Your task to perform on an android device: turn off location history Image 0: 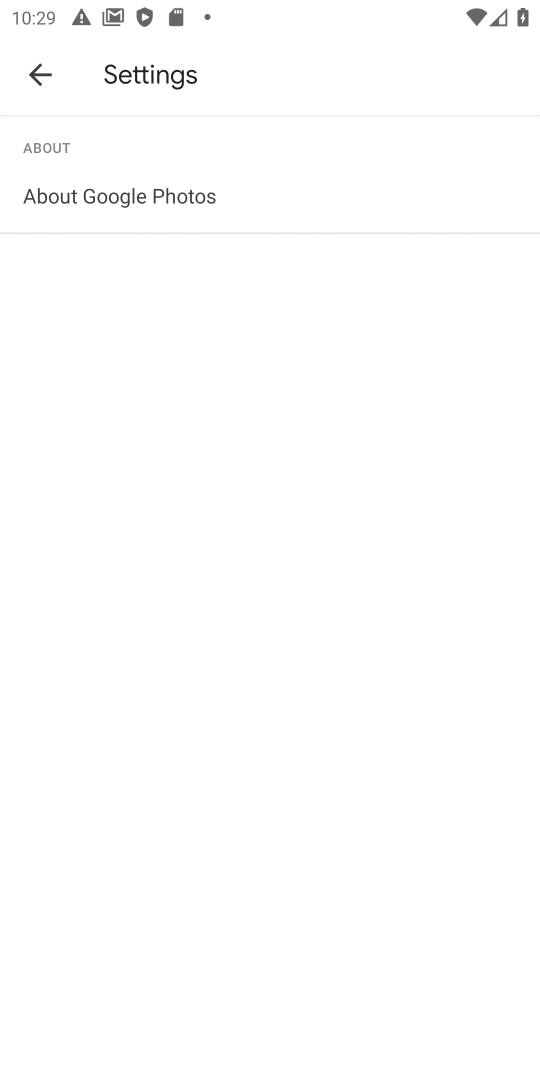
Step 0: press home button
Your task to perform on an android device: turn off location history Image 1: 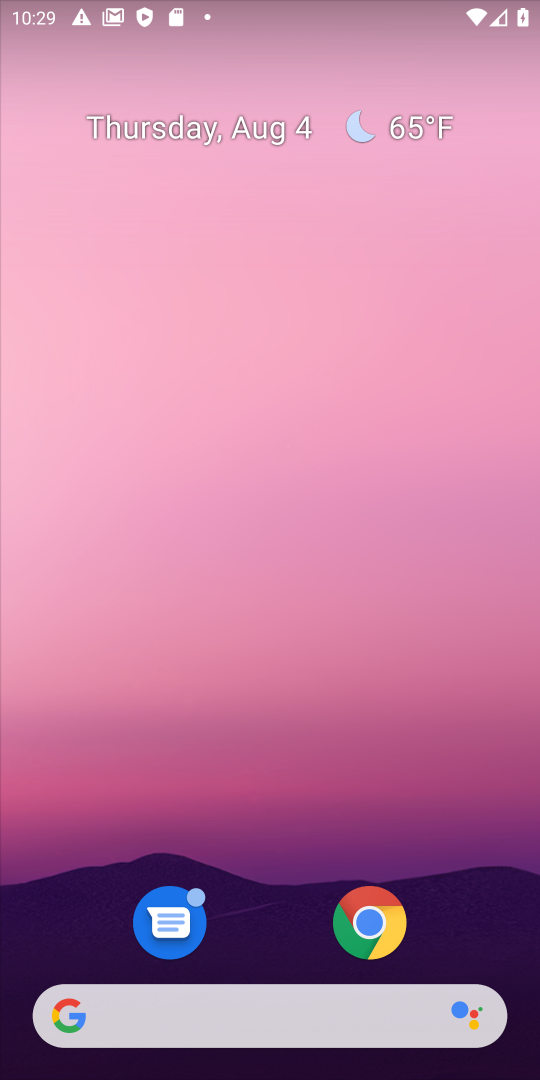
Step 1: drag from (279, 927) to (279, 162)
Your task to perform on an android device: turn off location history Image 2: 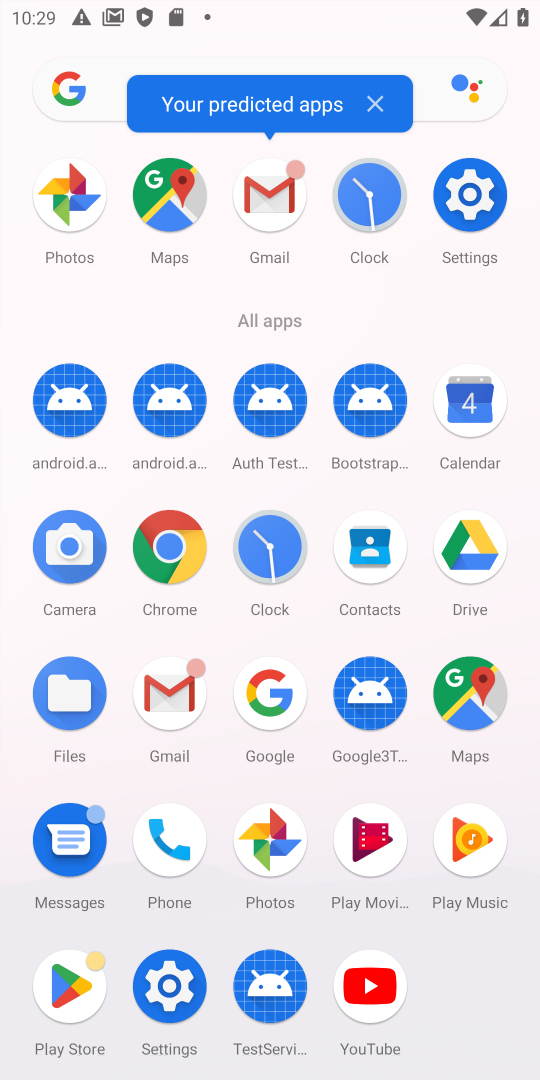
Step 2: click (454, 206)
Your task to perform on an android device: turn off location history Image 3: 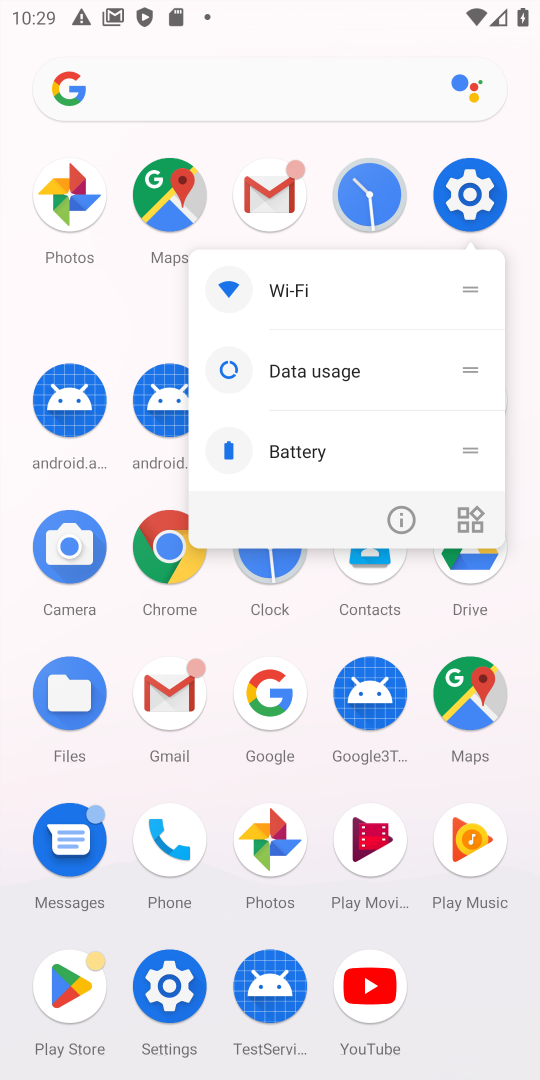
Step 3: click (465, 189)
Your task to perform on an android device: turn off location history Image 4: 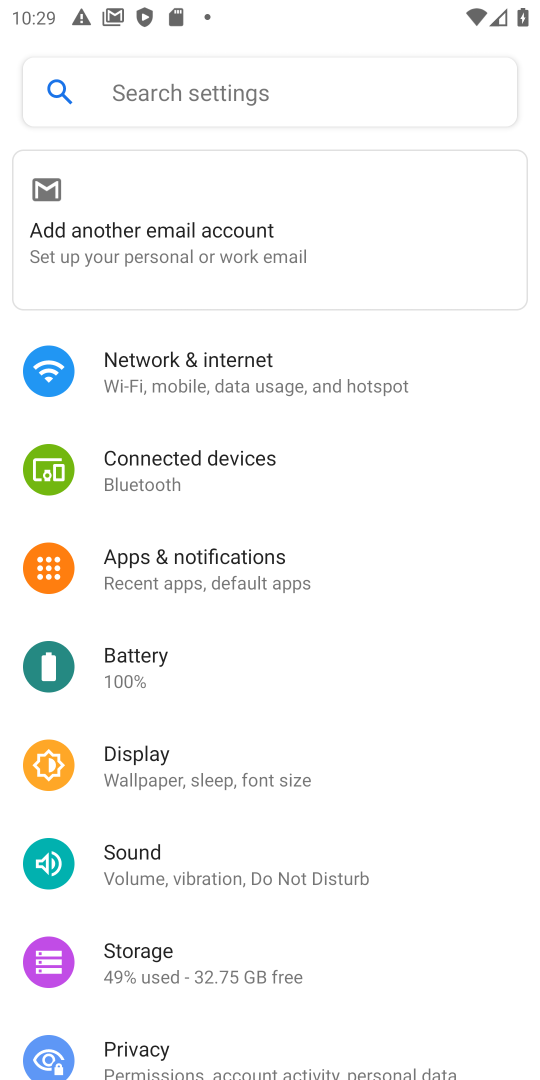
Step 4: drag from (160, 998) to (175, 503)
Your task to perform on an android device: turn off location history Image 5: 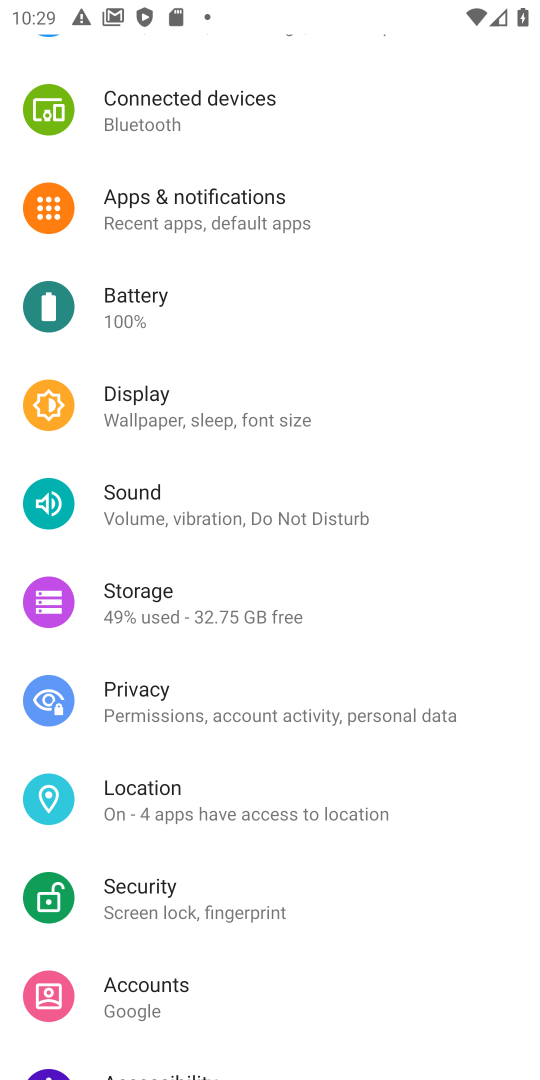
Step 5: click (145, 799)
Your task to perform on an android device: turn off location history Image 6: 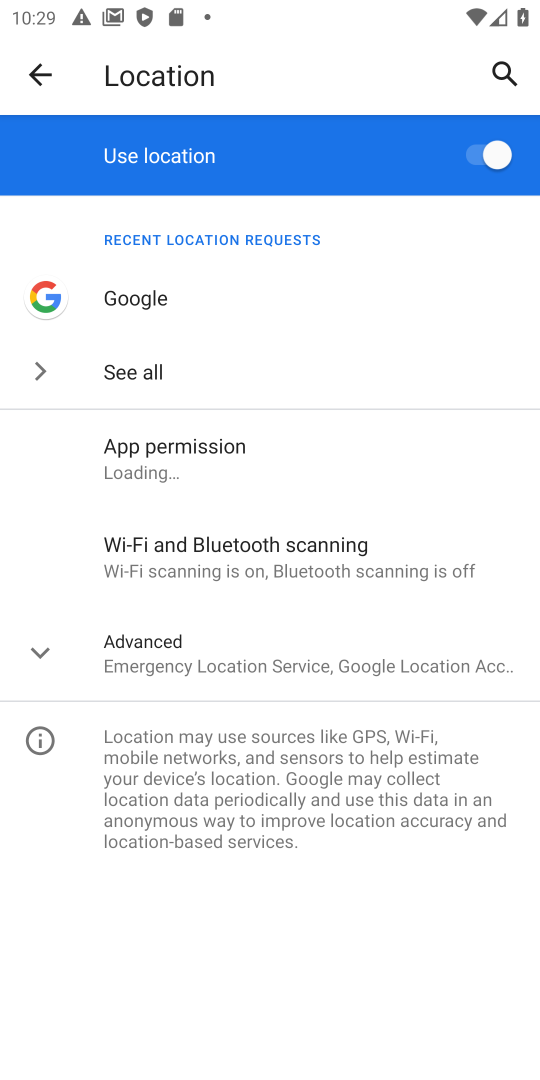
Step 6: click (127, 665)
Your task to perform on an android device: turn off location history Image 7: 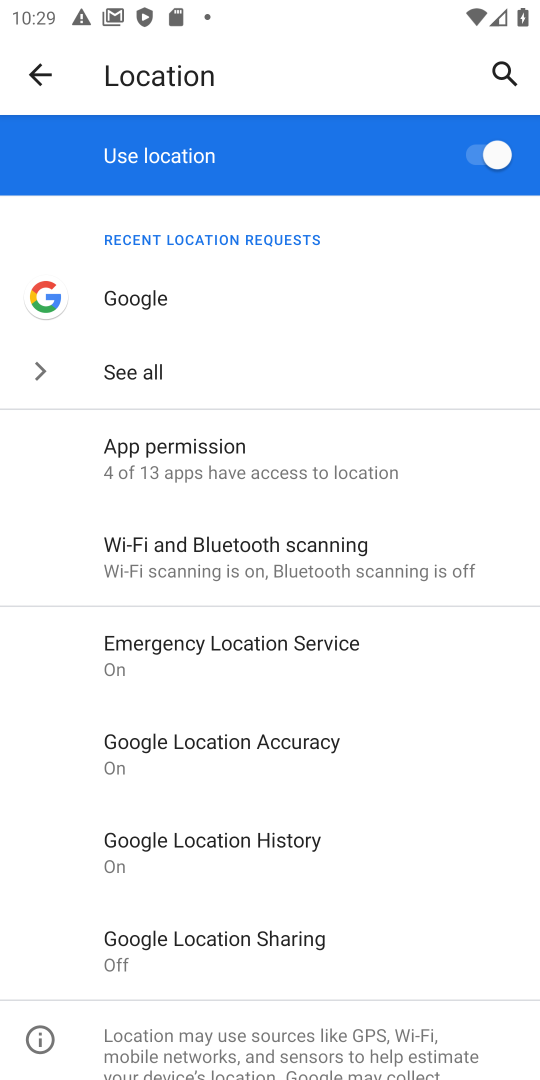
Step 7: click (280, 842)
Your task to perform on an android device: turn off location history Image 8: 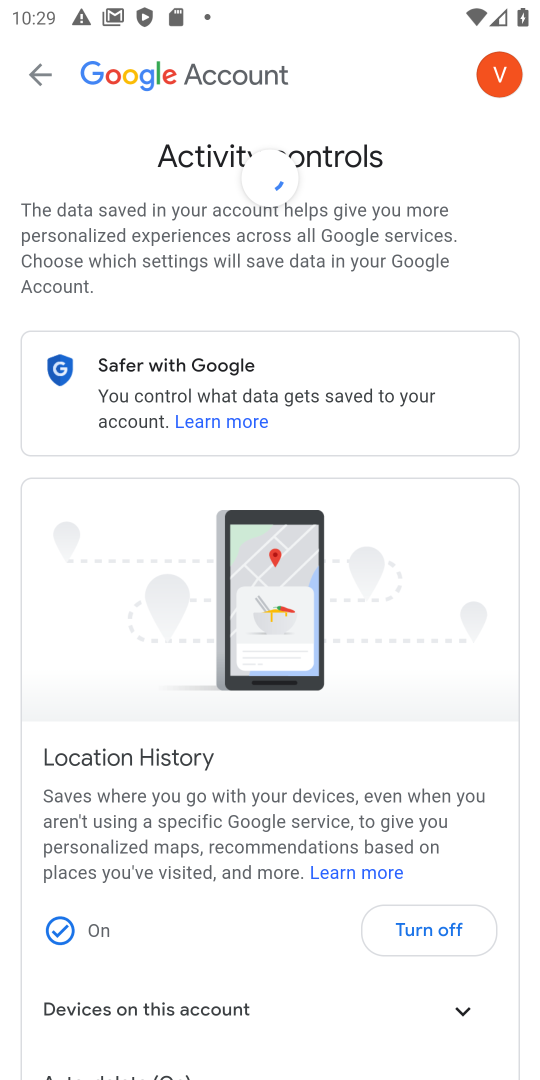
Step 8: click (422, 917)
Your task to perform on an android device: turn off location history Image 9: 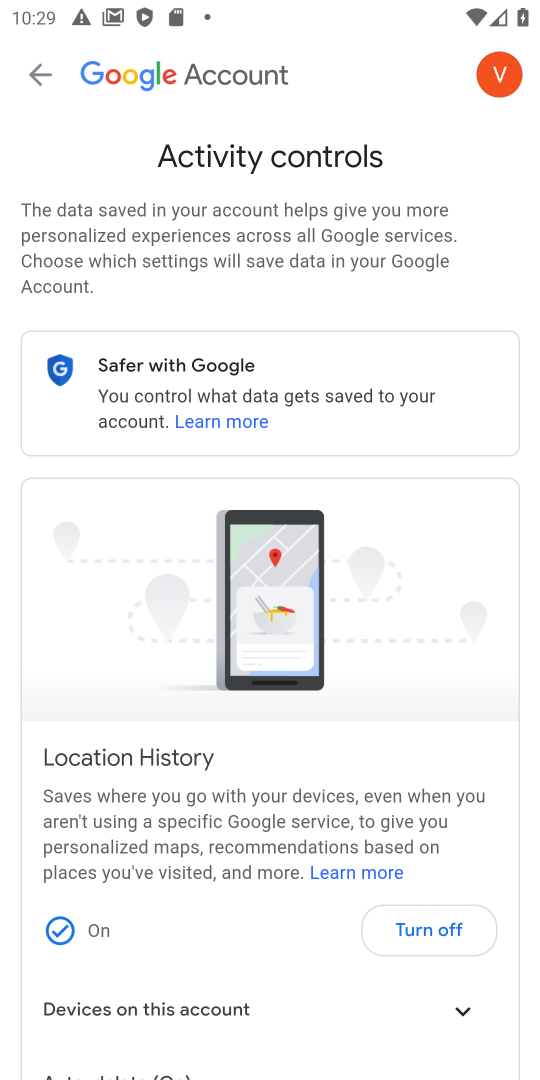
Step 9: click (419, 929)
Your task to perform on an android device: turn off location history Image 10: 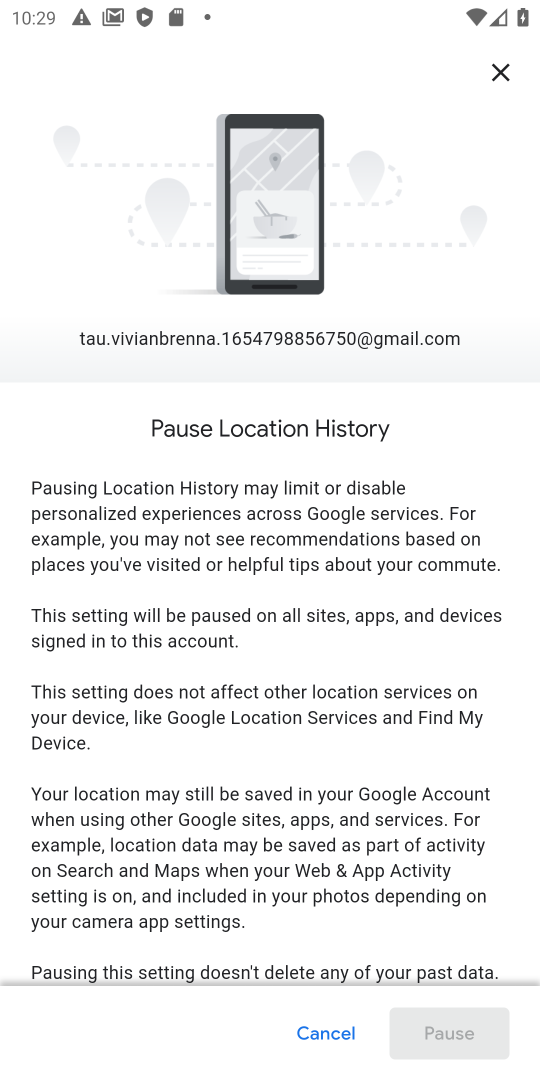
Step 10: drag from (399, 916) to (396, 444)
Your task to perform on an android device: turn off location history Image 11: 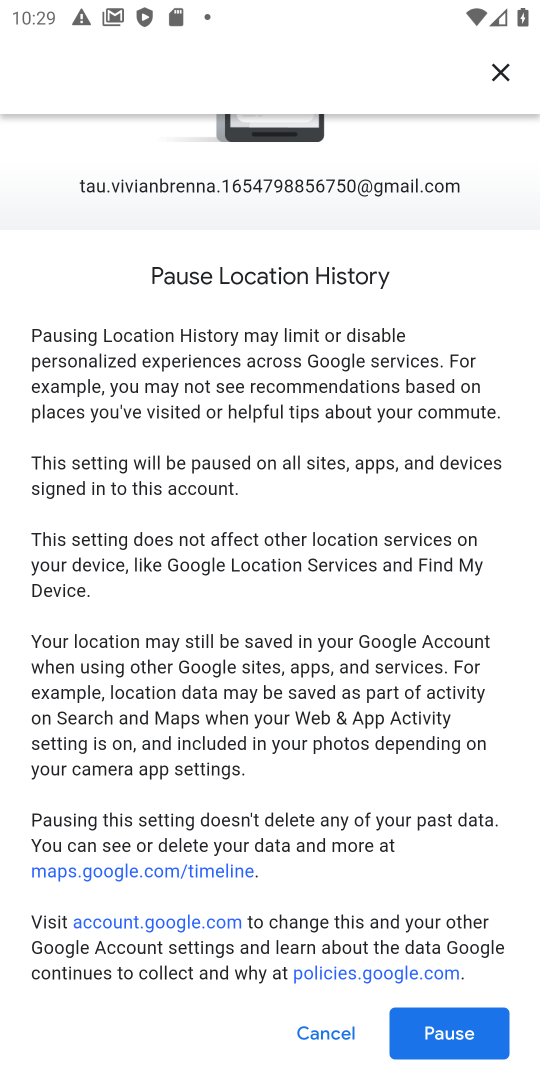
Step 11: drag from (401, 916) to (401, 561)
Your task to perform on an android device: turn off location history Image 12: 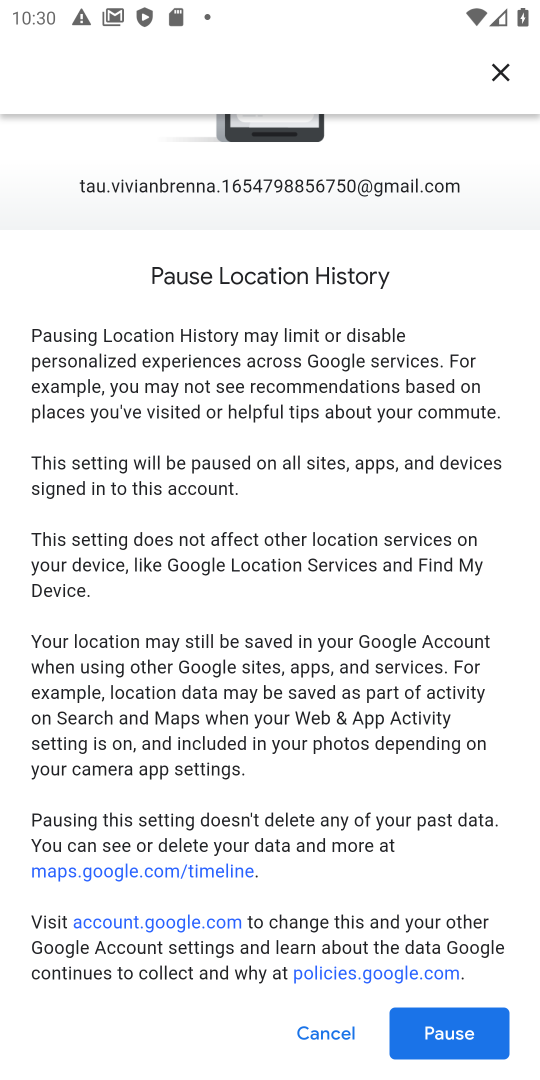
Step 12: click (479, 1041)
Your task to perform on an android device: turn off location history Image 13: 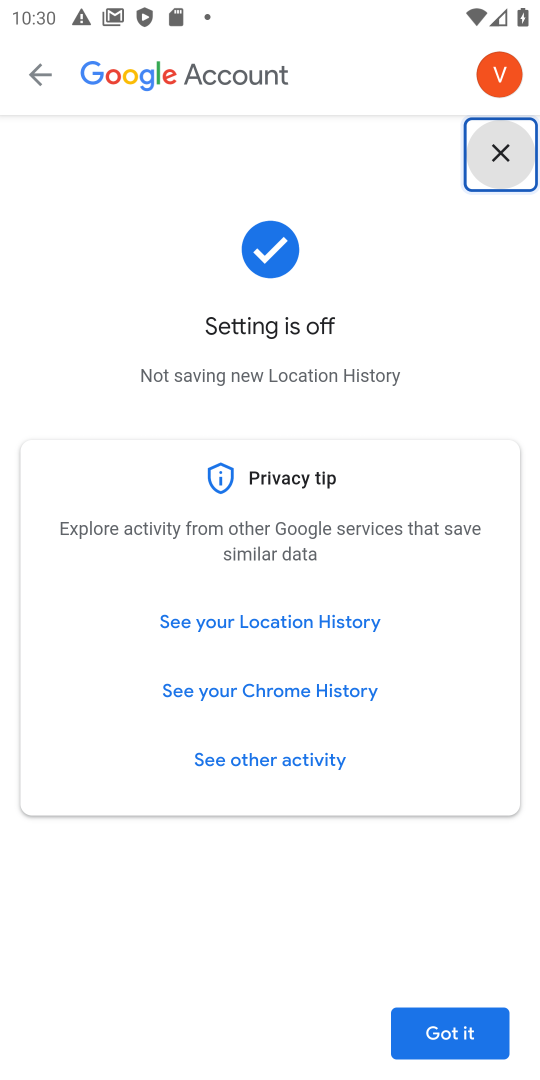
Step 13: click (479, 1041)
Your task to perform on an android device: turn off location history Image 14: 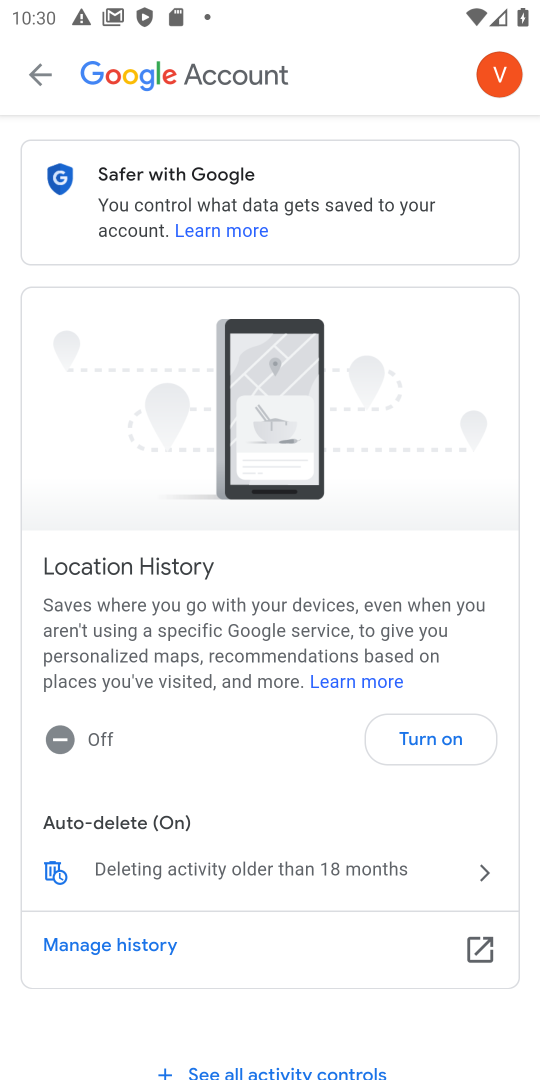
Step 14: task complete